Your task to perform on an android device: turn on data saver in the chrome app Image 0: 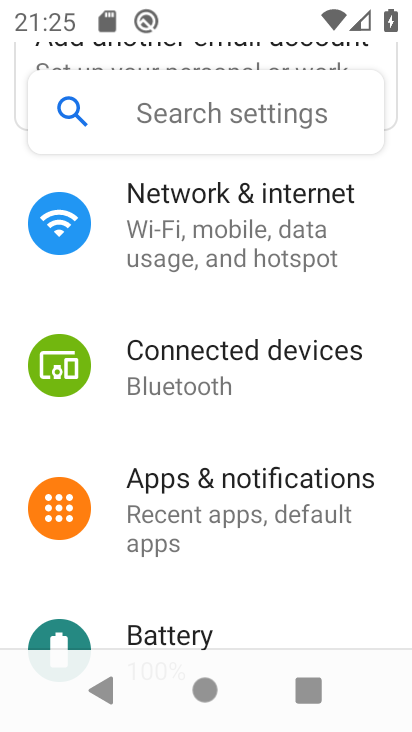
Step 0: press home button
Your task to perform on an android device: turn on data saver in the chrome app Image 1: 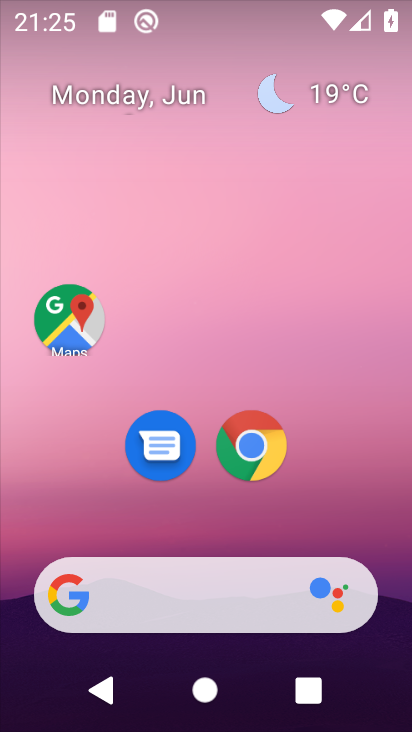
Step 1: click (252, 478)
Your task to perform on an android device: turn on data saver in the chrome app Image 2: 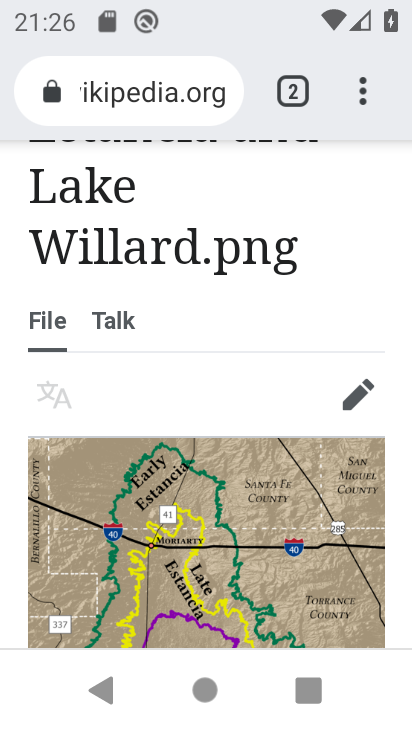
Step 2: click (366, 89)
Your task to perform on an android device: turn on data saver in the chrome app Image 3: 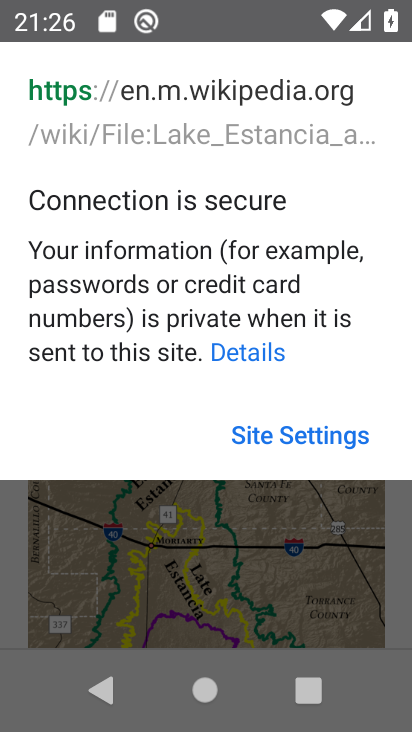
Step 3: click (219, 569)
Your task to perform on an android device: turn on data saver in the chrome app Image 4: 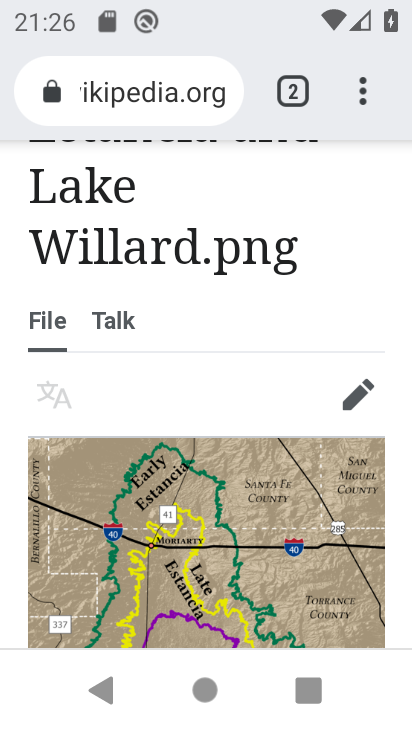
Step 4: click (364, 89)
Your task to perform on an android device: turn on data saver in the chrome app Image 5: 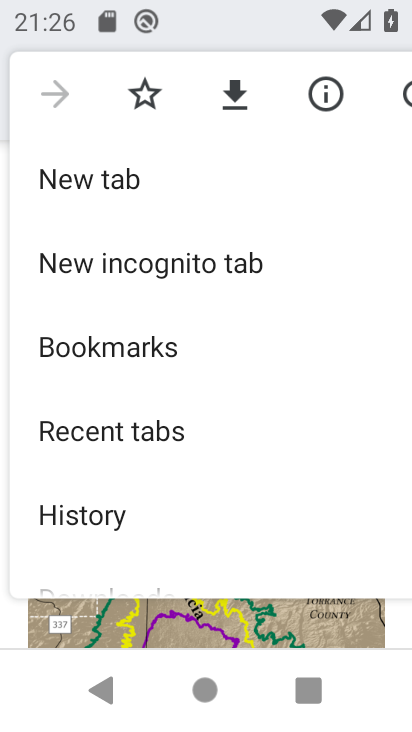
Step 5: drag from (227, 528) to (247, 146)
Your task to perform on an android device: turn on data saver in the chrome app Image 6: 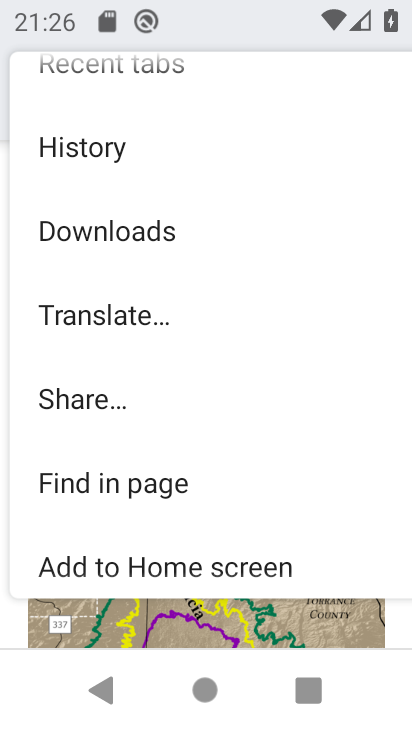
Step 6: drag from (201, 517) to (220, 99)
Your task to perform on an android device: turn on data saver in the chrome app Image 7: 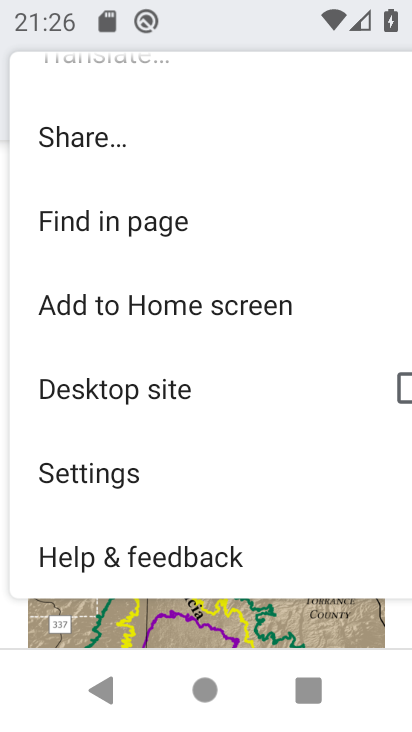
Step 7: click (148, 474)
Your task to perform on an android device: turn on data saver in the chrome app Image 8: 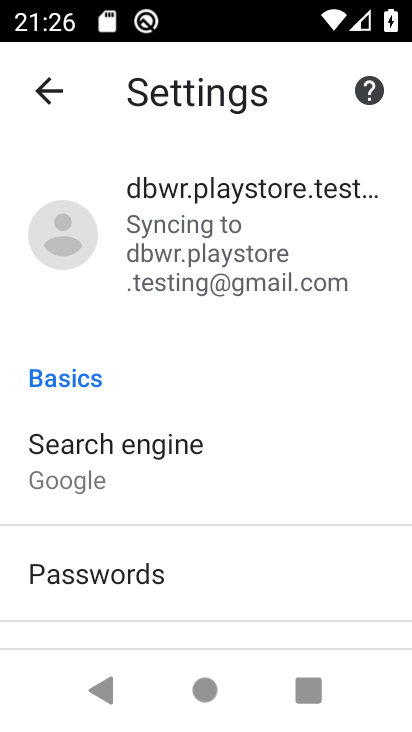
Step 8: drag from (198, 193) to (200, 104)
Your task to perform on an android device: turn on data saver in the chrome app Image 9: 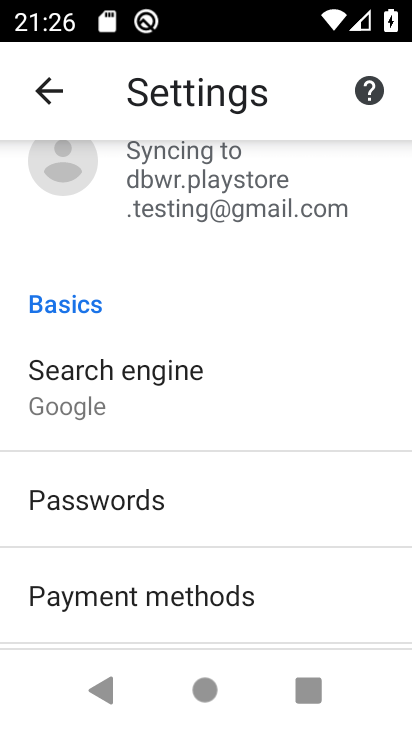
Step 9: drag from (168, 578) to (170, 79)
Your task to perform on an android device: turn on data saver in the chrome app Image 10: 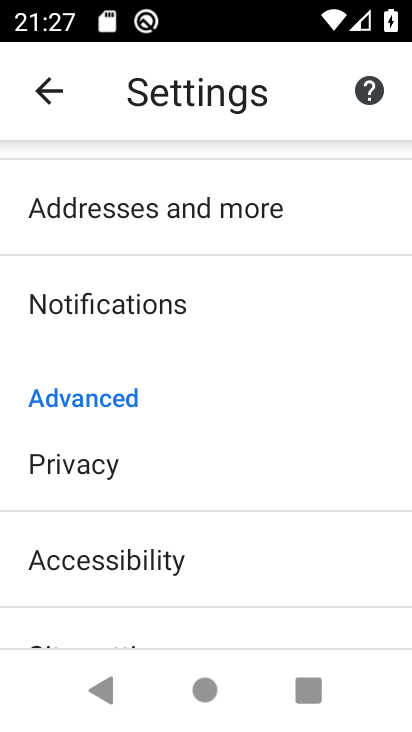
Step 10: drag from (174, 540) to (199, 142)
Your task to perform on an android device: turn on data saver in the chrome app Image 11: 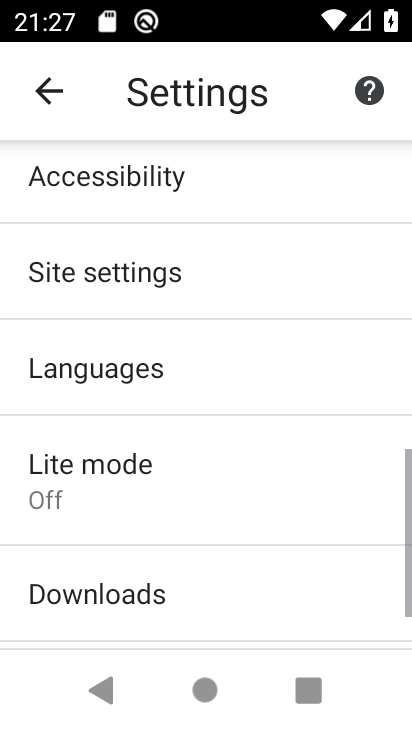
Step 11: drag from (204, 522) to (225, 164)
Your task to perform on an android device: turn on data saver in the chrome app Image 12: 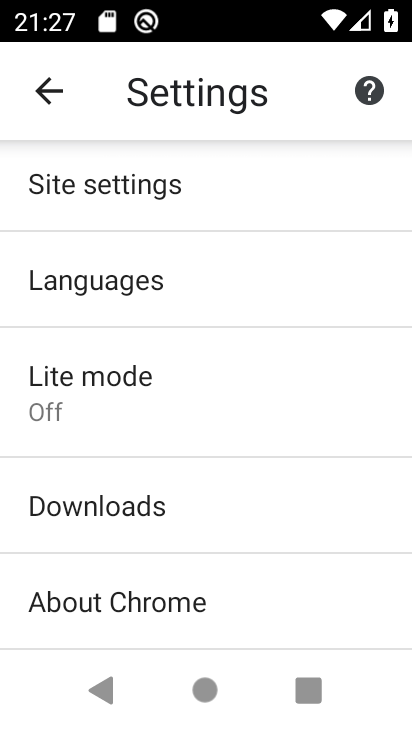
Step 12: drag from (200, 549) to (212, 288)
Your task to perform on an android device: turn on data saver in the chrome app Image 13: 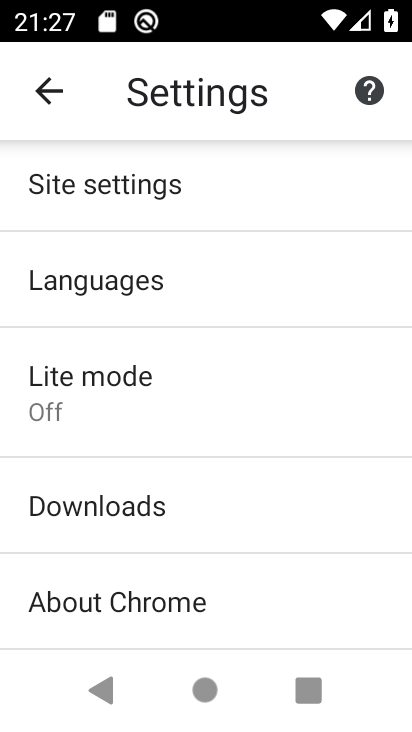
Step 13: click (141, 400)
Your task to perform on an android device: turn on data saver in the chrome app Image 14: 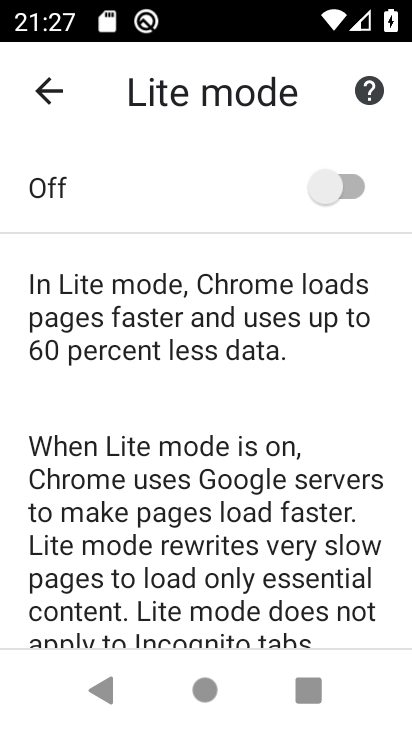
Step 14: click (347, 196)
Your task to perform on an android device: turn on data saver in the chrome app Image 15: 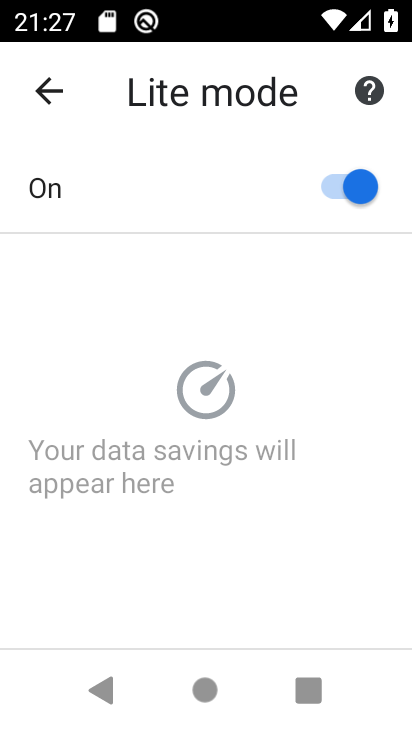
Step 15: task complete